Your task to perform on an android device: Open display settings Image 0: 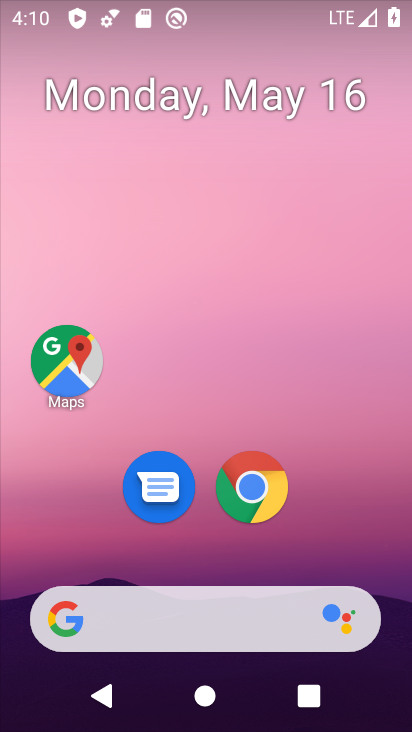
Step 0: drag from (400, 615) to (302, 100)
Your task to perform on an android device: Open display settings Image 1: 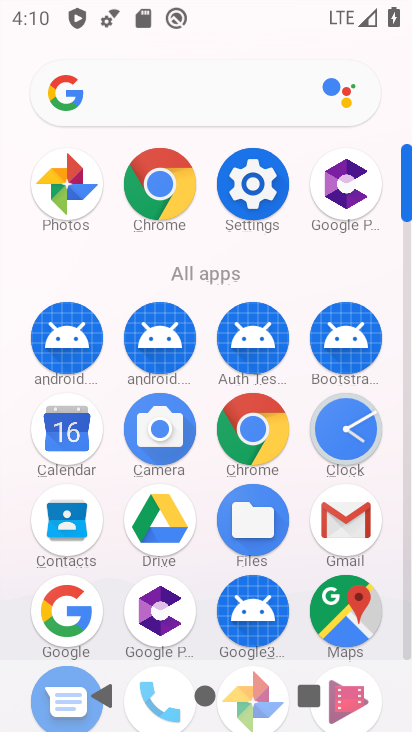
Step 1: click (407, 642)
Your task to perform on an android device: Open display settings Image 2: 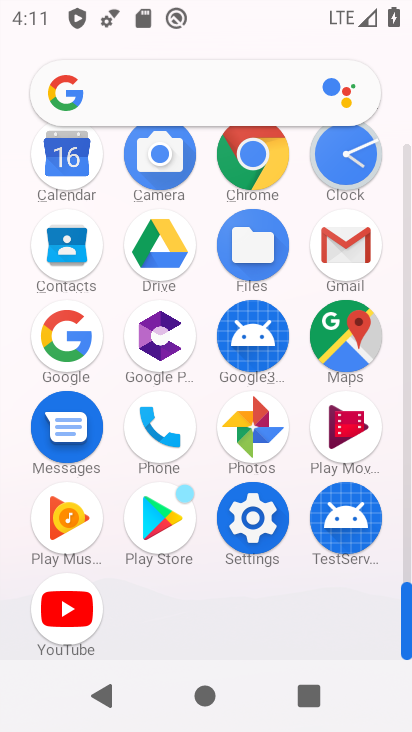
Step 2: click (253, 517)
Your task to perform on an android device: Open display settings Image 3: 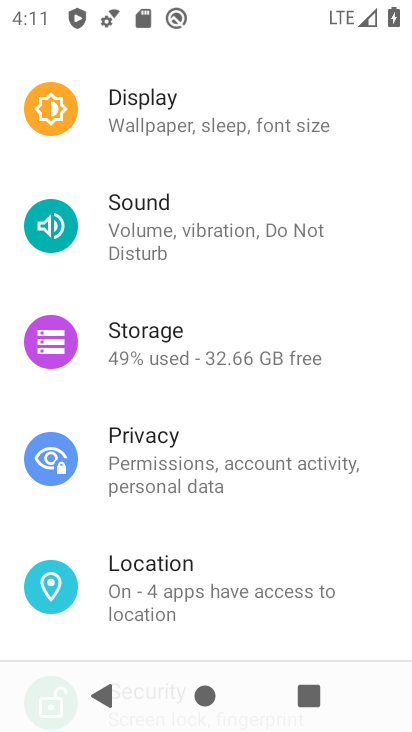
Step 3: drag from (294, 246) to (281, 429)
Your task to perform on an android device: Open display settings Image 4: 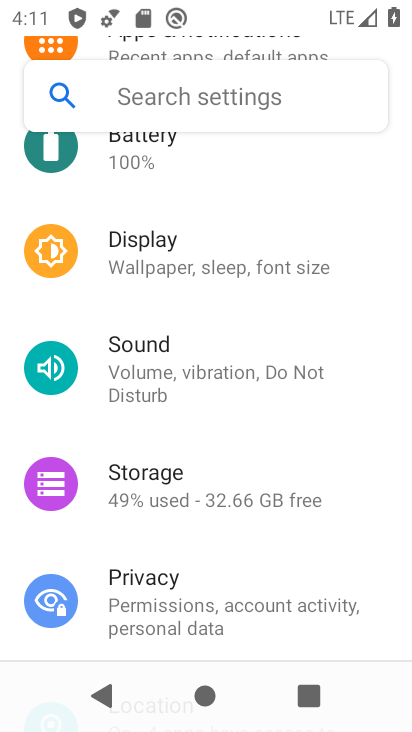
Step 4: click (154, 247)
Your task to perform on an android device: Open display settings Image 5: 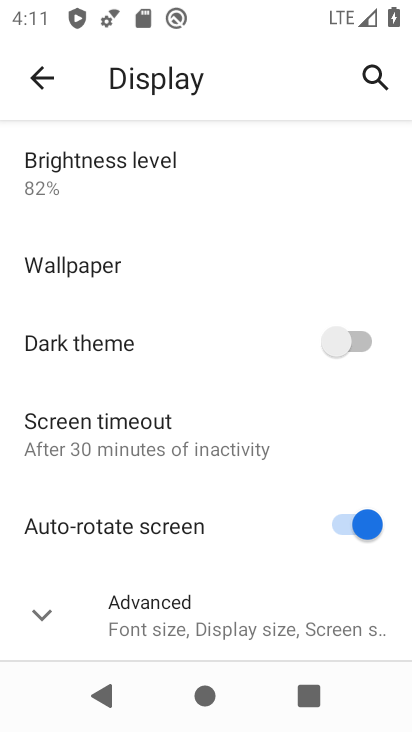
Step 5: drag from (259, 553) to (259, 337)
Your task to perform on an android device: Open display settings Image 6: 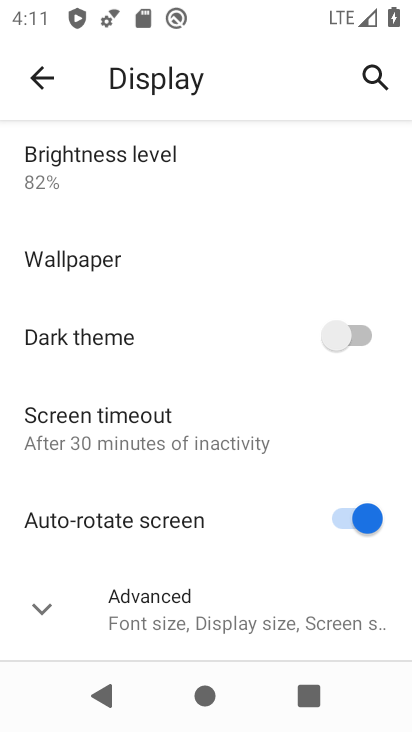
Step 6: click (45, 607)
Your task to perform on an android device: Open display settings Image 7: 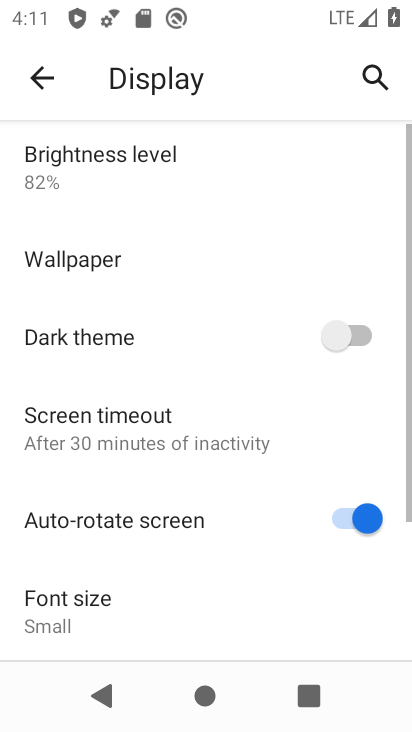
Step 7: task complete